Your task to perform on an android device: Open the calendar app, open the side menu, and click the "Day" option Image 0: 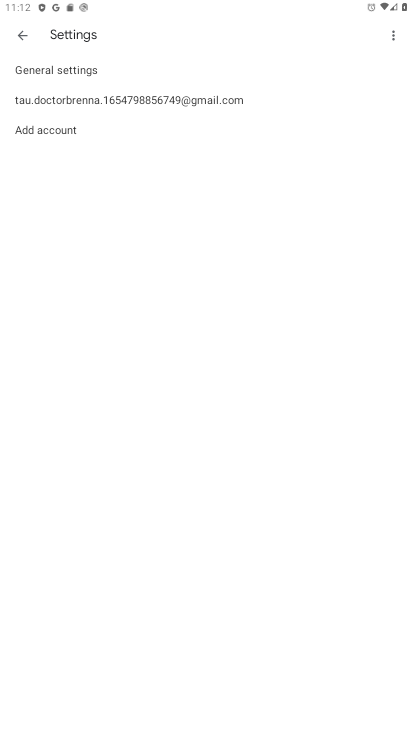
Step 0: press home button
Your task to perform on an android device: Open the calendar app, open the side menu, and click the "Day" option Image 1: 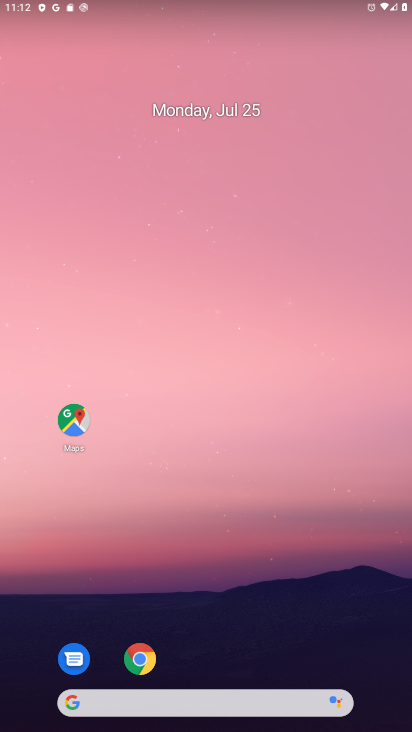
Step 1: drag from (252, 602) to (186, 10)
Your task to perform on an android device: Open the calendar app, open the side menu, and click the "Day" option Image 2: 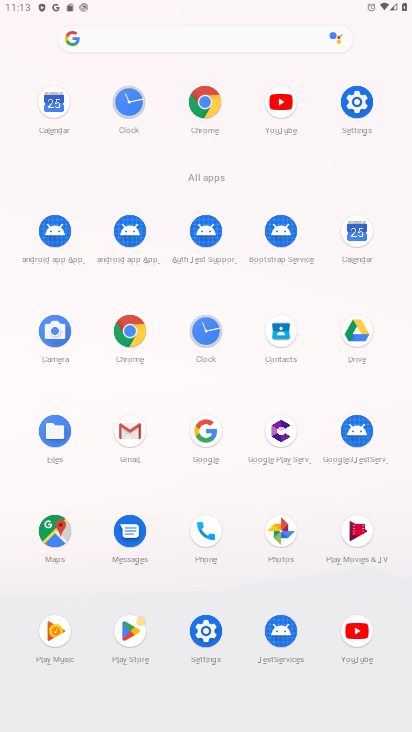
Step 2: click (360, 230)
Your task to perform on an android device: Open the calendar app, open the side menu, and click the "Day" option Image 3: 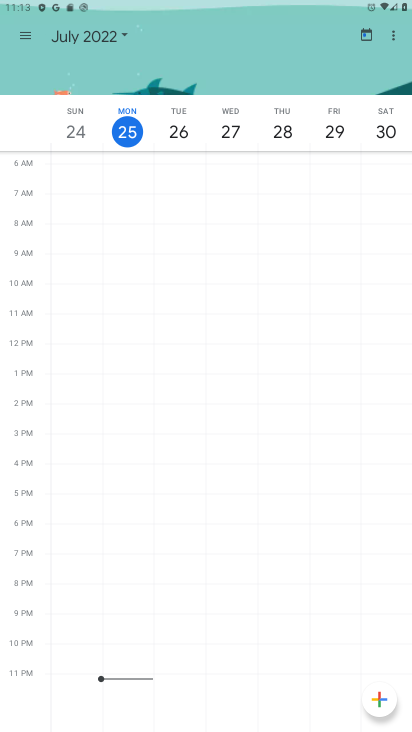
Step 3: click (21, 34)
Your task to perform on an android device: Open the calendar app, open the side menu, and click the "Day" option Image 4: 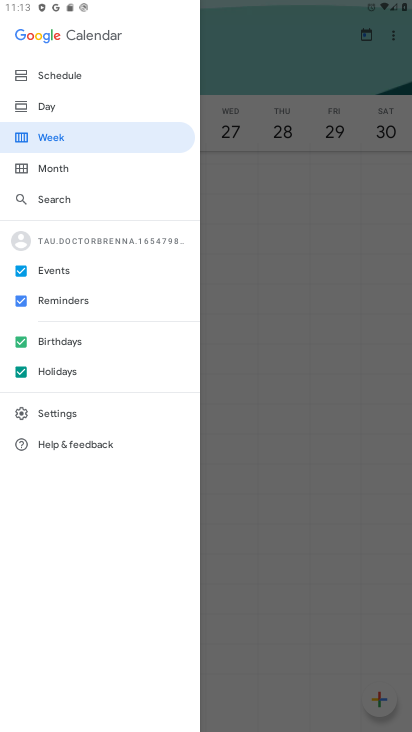
Step 4: click (39, 103)
Your task to perform on an android device: Open the calendar app, open the side menu, and click the "Day" option Image 5: 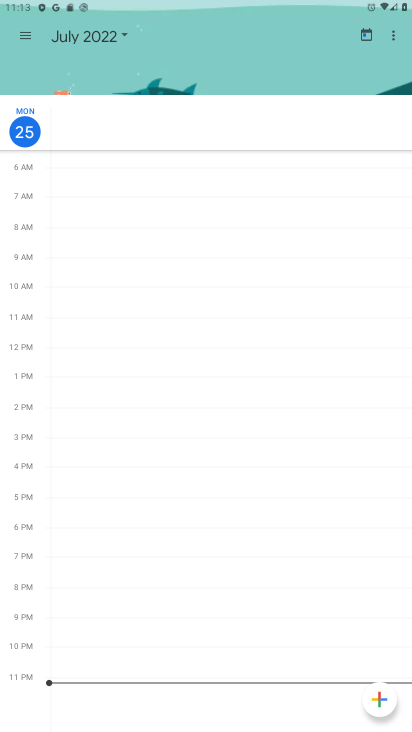
Step 5: task complete